Your task to perform on an android device: Show me the alarms in the clock app Image 0: 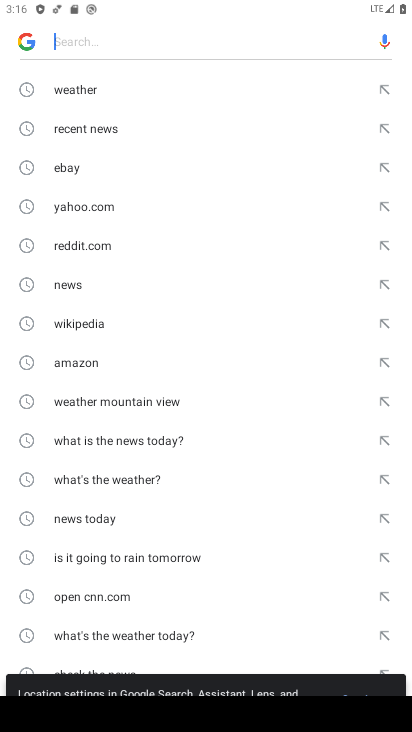
Step 0: press home button
Your task to perform on an android device: Show me the alarms in the clock app Image 1: 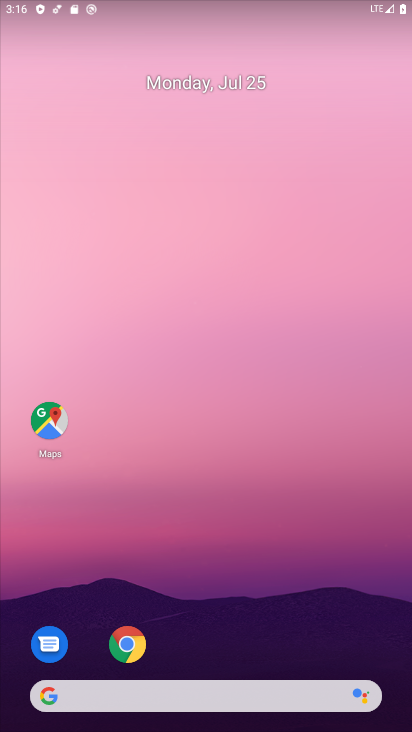
Step 1: drag from (213, 648) to (183, 216)
Your task to perform on an android device: Show me the alarms in the clock app Image 2: 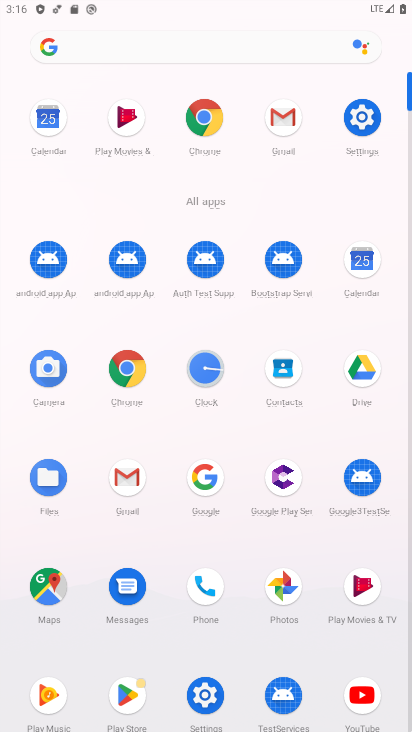
Step 2: click (193, 364)
Your task to perform on an android device: Show me the alarms in the clock app Image 3: 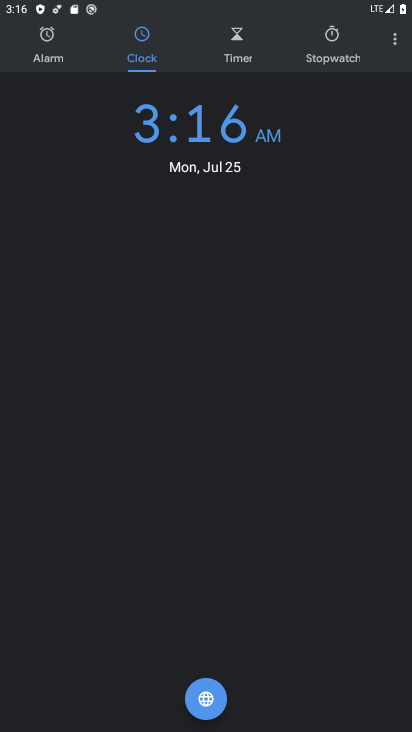
Step 3: click (43, 51)
Your task to perform on an android device: Show me the alarms in the clock app Image 4: 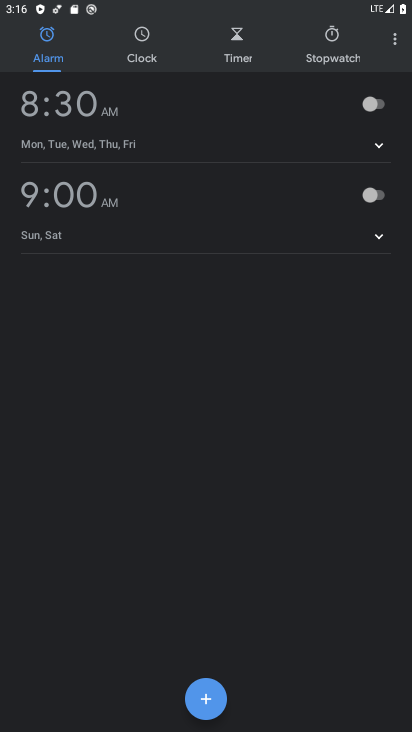
Step 4: task complete